Your task to perform on an android device: show emergency info Image 0: 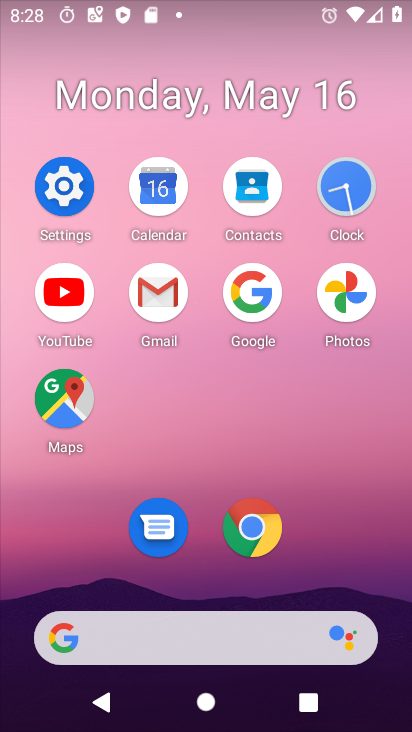
Step 0: click (69, 198)
Your task to perform on an android device: show emergency info Image 1: 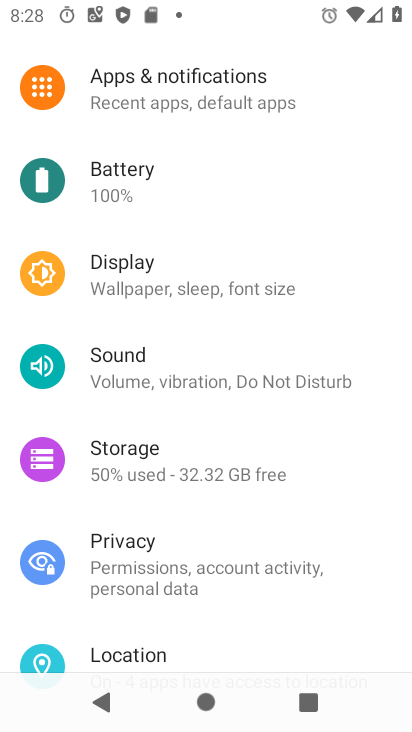
Step 1: drag from (240, 577) to (255, 136)
Your task to perform on an android device: show emergency info Image 2: 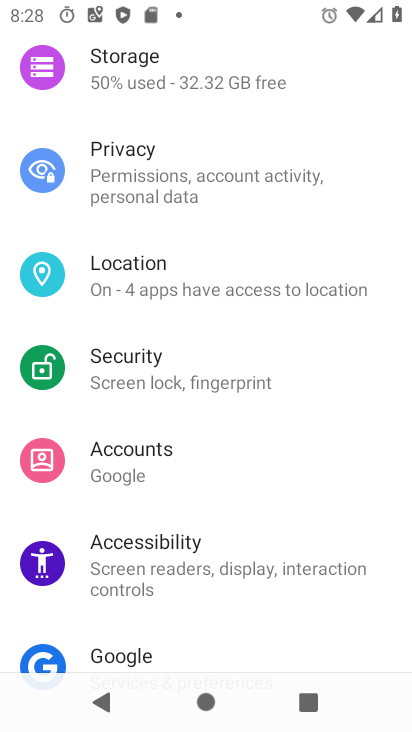
Step 2: drag from (276, 606) to (258, 183)
Your task to perform on an android device: show emergency info Image 3: 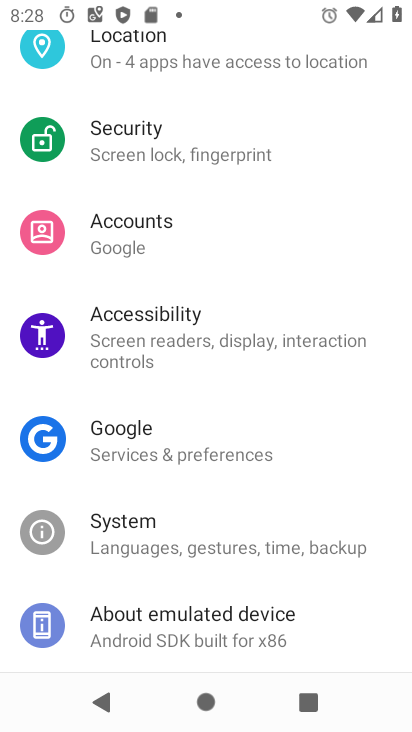
Step 3: drag from (259, 502) to (245, 208)
Your task to perform on an android device: show emergency info Image 4: 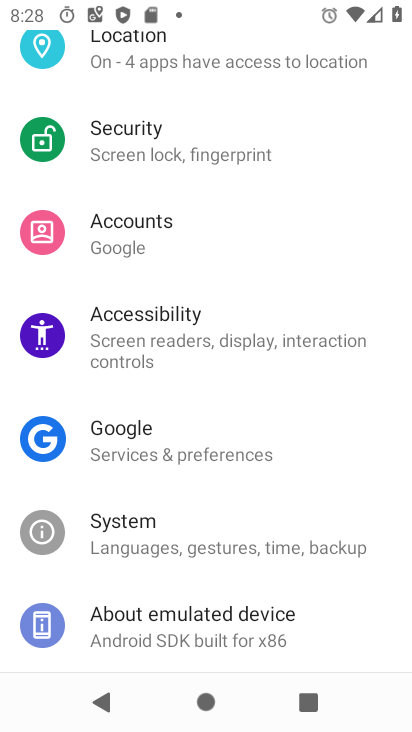
Step 4: click (309, 163)
Your task to perform on an android device: show emergency info Image 5: 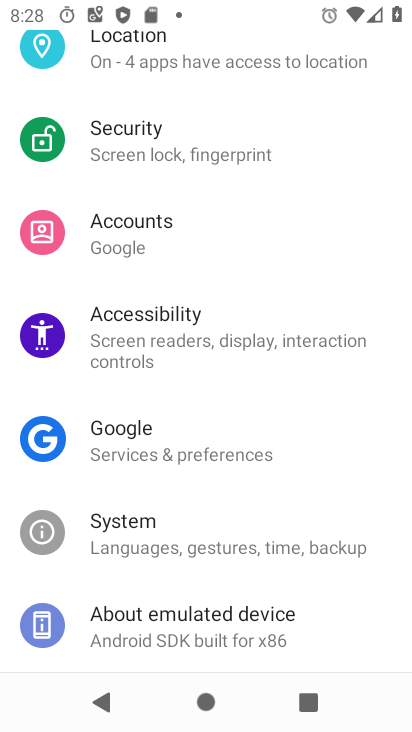
Step 5: click (255, 609)
Your task to perform on an android device: show emergency info Image 6: 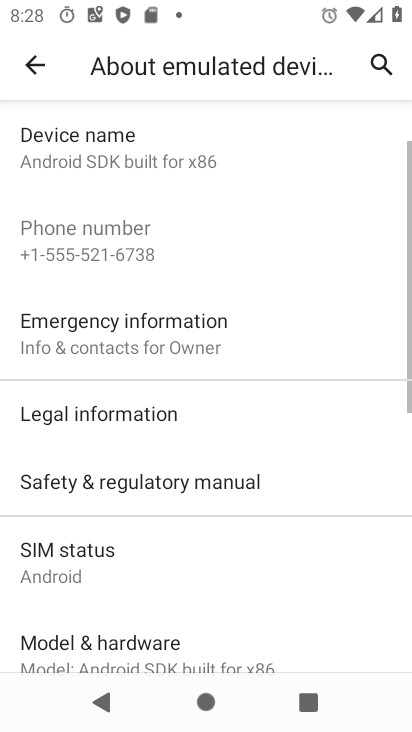
Step 6: click (167, 312)
Your task to perform on an android device: show emergency info Image 7: 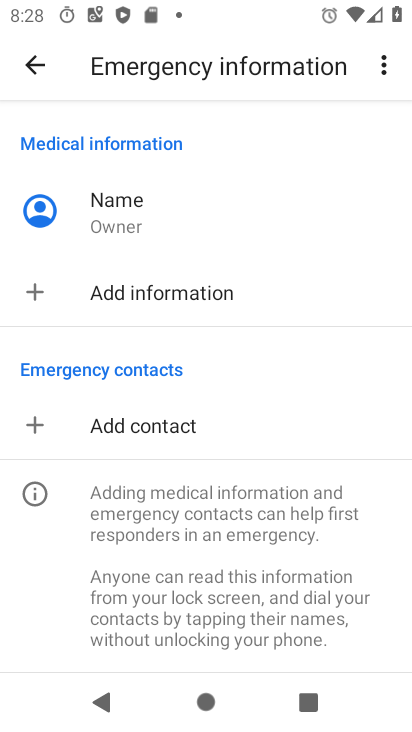
Step 7: task complete